Your task to perform on an android device: open a bookmark in the chrome app Image 0: 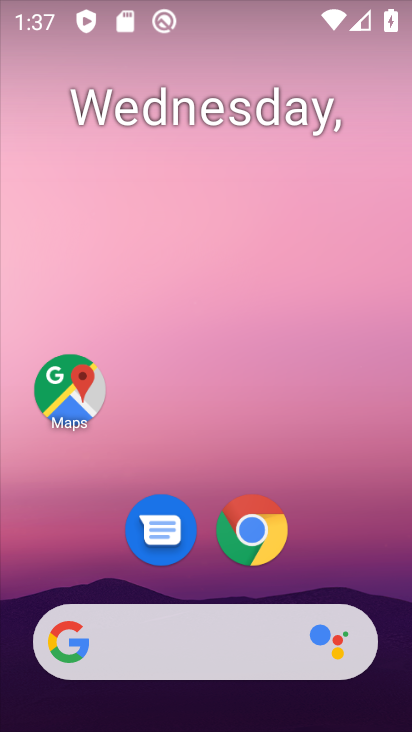
Step 0: click (233, 544)
Your task to perform on an android device: open a bookmark in the chrome app Image 1: 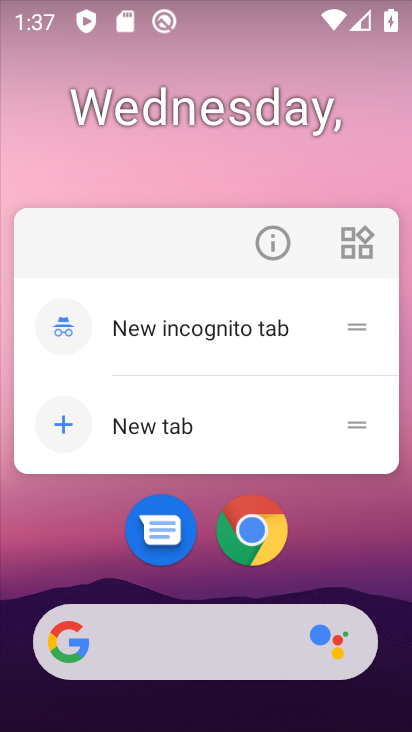
Step 1: click (252, 546)
Your task to perform on an android device: open a bookmark in the chrome app Image 2: 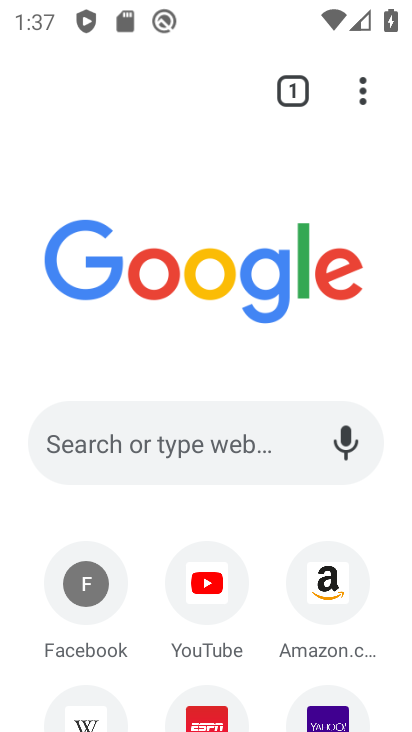
Step 2: drag from (361, 103) to (313, 329)
Your task to perform on an android device: open a bookmark in the chrome app Image 3: 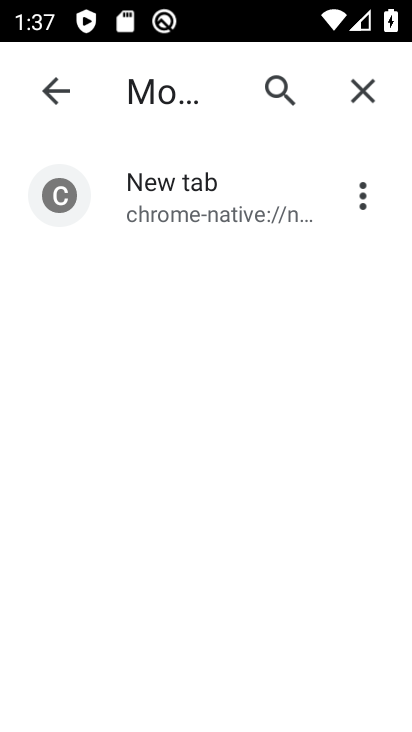
Step 3: click (200, 218)
Your task to perform on an android device: open a bookmark in the chrome app Image 4: 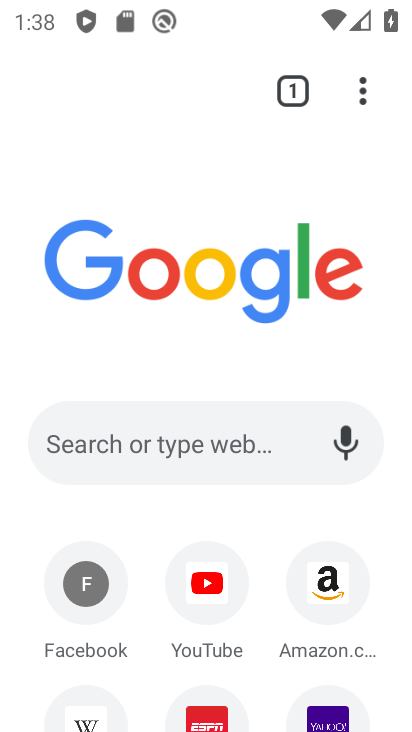
Step 4: task complete